Your task to perform on an android device: turn pop-ups on in chrome Image 0: 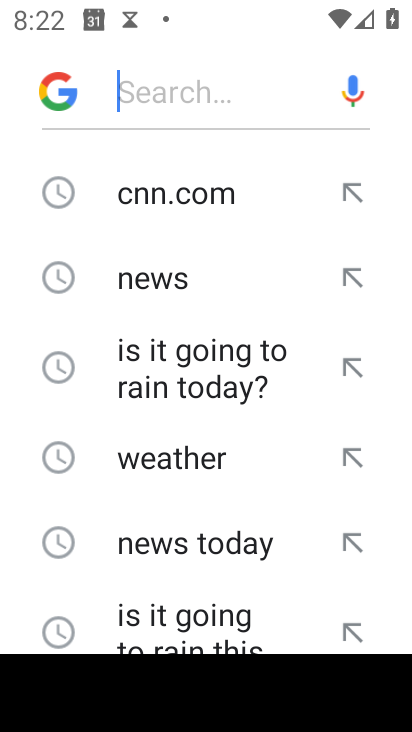
Step 0: press home button
Your task to perform on an android device: turn pop-ups on in chrome Image 1: 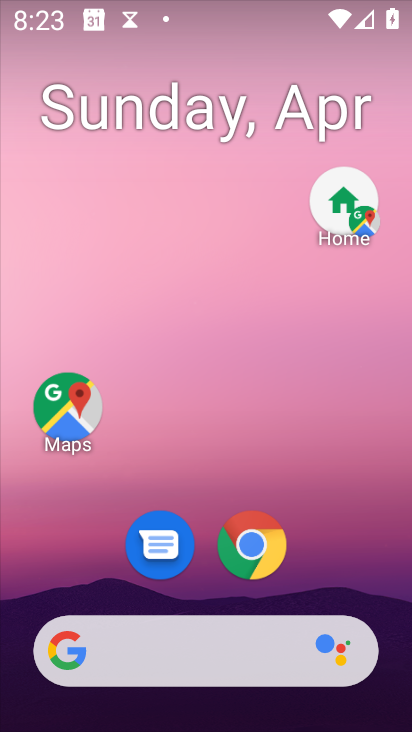
Step 1: drag from (310, 557) to (264, 161)
Your task to perform on an android device: turn pop-ups on in chrome Image 2: 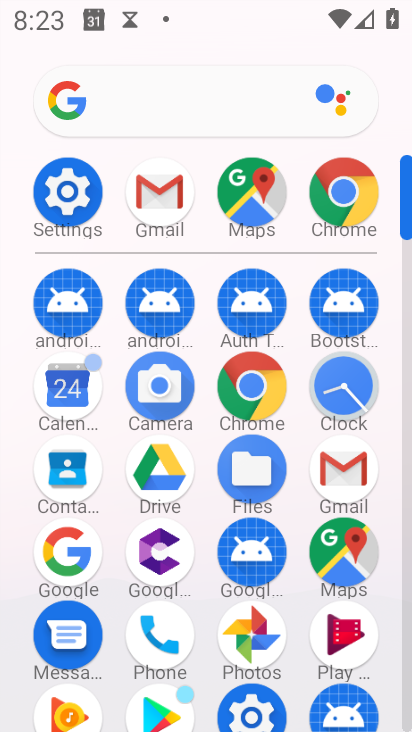
Step 2: click (246, 383)
Your task to perform on an android device: turn pop-ups on in chrome Image 3: 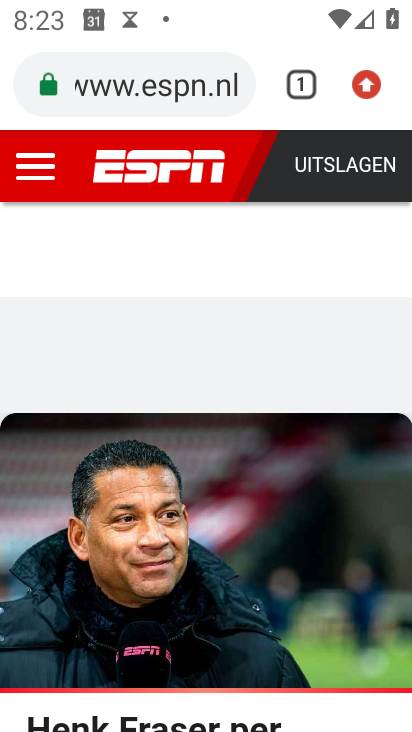
Step 3: click (371, 69)
Your task to perform on an android device: turn pop-ups on in chrome Image 4: 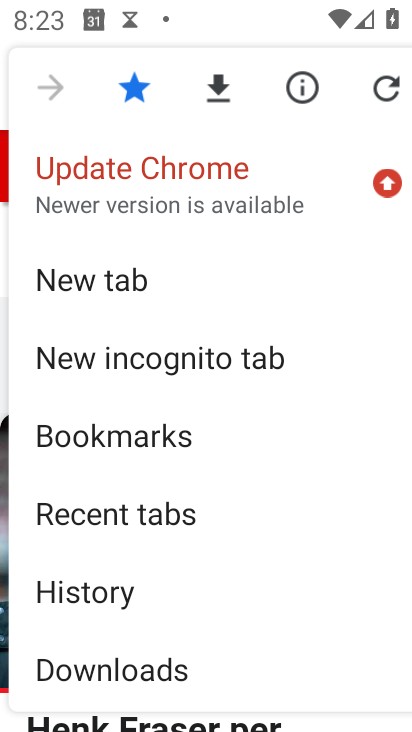
Step 4: drag from (212, 646) to (262, 169)
Your task to perform on an android device: turn pop-ups on in chrome Image 5: 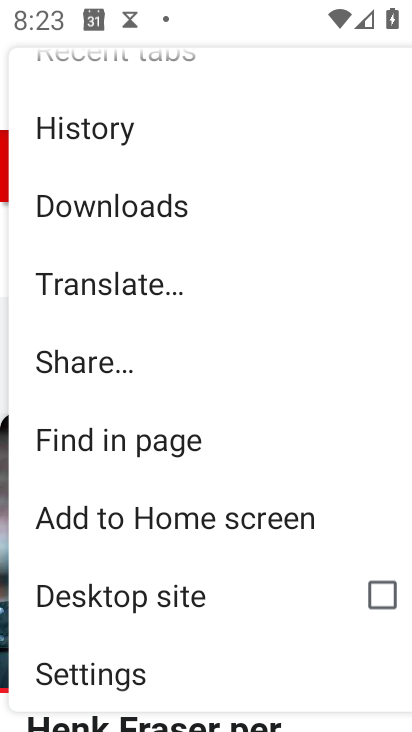
Step 5: click (136, 668)
Your task to perform on an android device: turn pop-ups on in chrome Image 6: 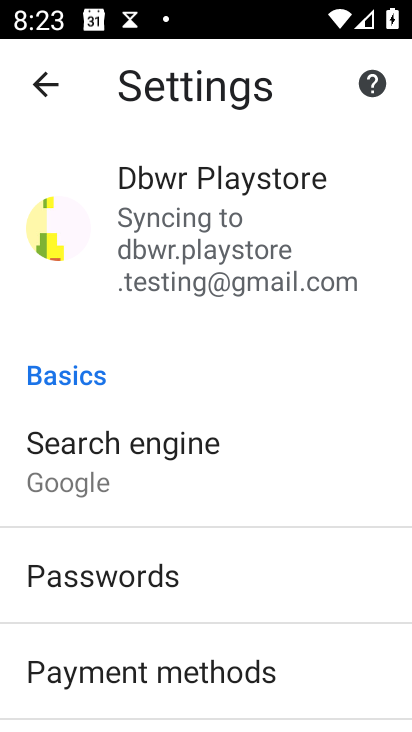
Step 6: drag from (190, 628) to (233, 164)
Your task to perform on an android device: turn pop-ups on in chrome Image 7: 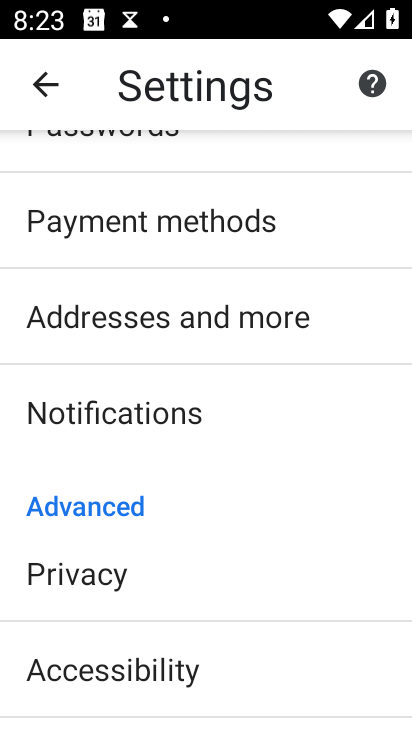
Step 7: drag from (125, 596) to (208, 230)
Your task to perform on an android device: turn pop-ups on in chrome Image 8: 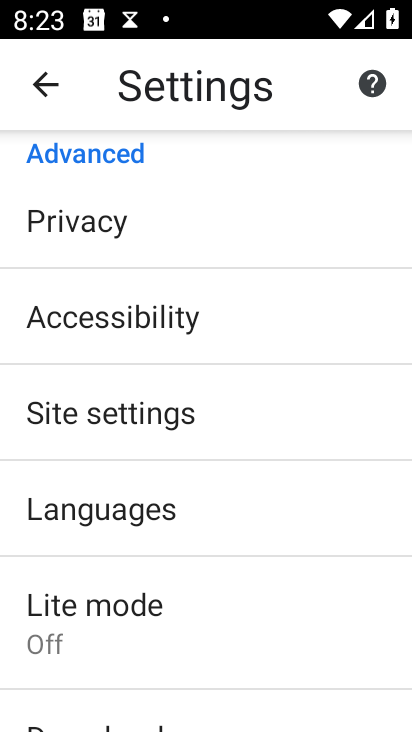
Step 8: click (141, 423)
Your task to perform on an android device: turn pop-ups on in chrome Image 9: 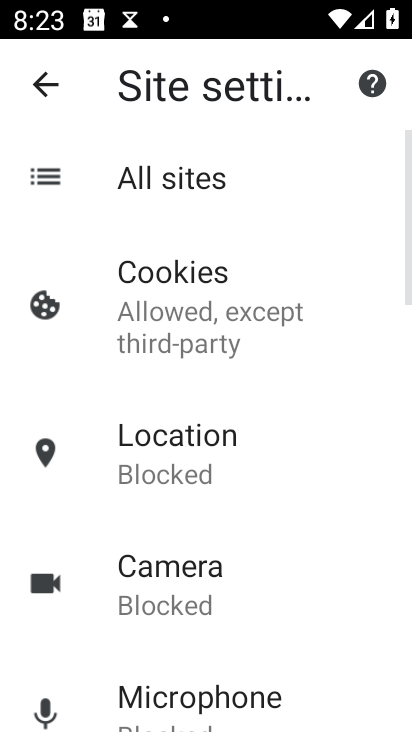
Step 9: drag from (205, 673) to (278, 243)
Your task to perform on an android device: turn pop-ups on in chrome Image 10: 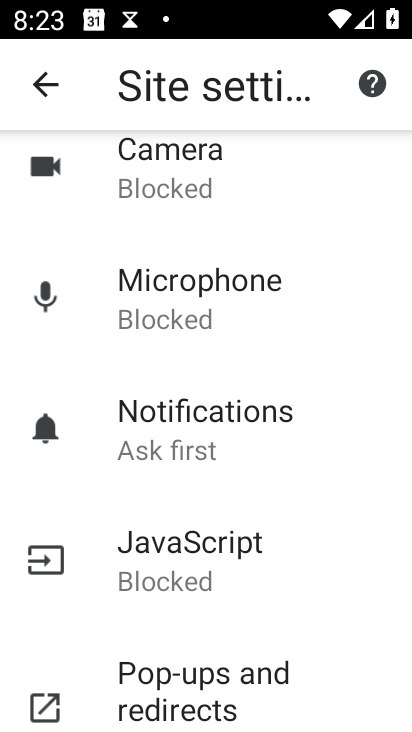
Step 10: click (182, 691)
Your task to perform on an android device: turn pop-ups on in chrome Image 11: 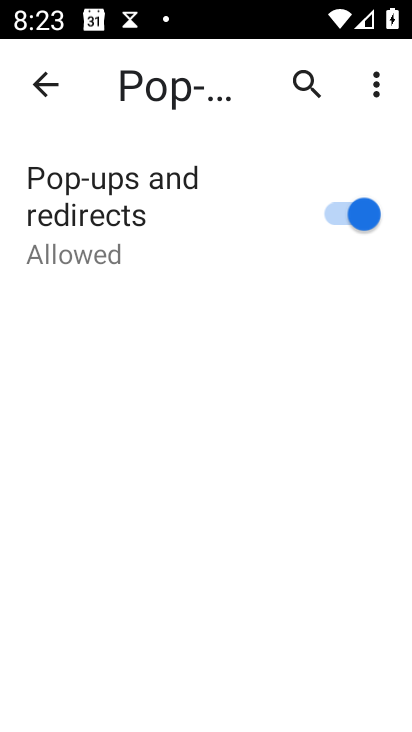
Step 11: task complete